Your task to perform on an android device: What's the weather like in Beijing? Image 0: 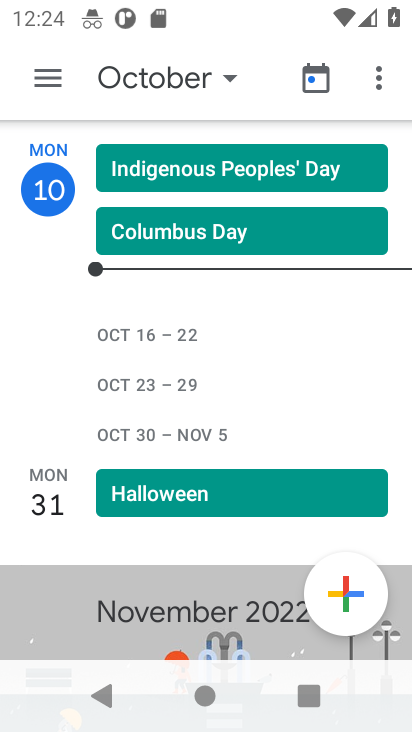
Step 0: press home button
Your task to perform on an android device: What's the weather like in Beijing? Image 1: 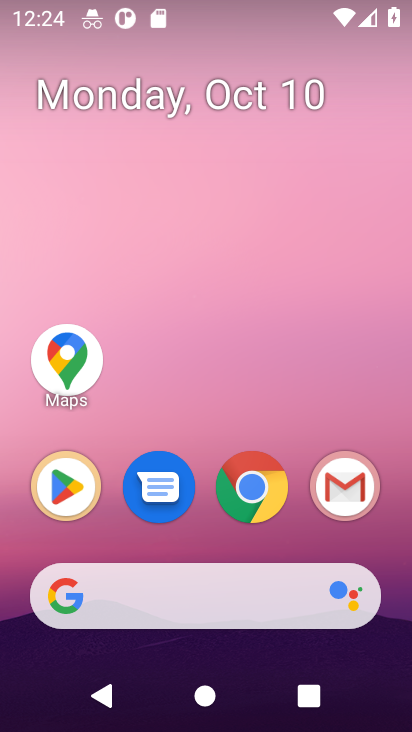
Step 1: click (259, 495)
Your task to perform on an android device: What's the weather like in Beijing? Image 2: 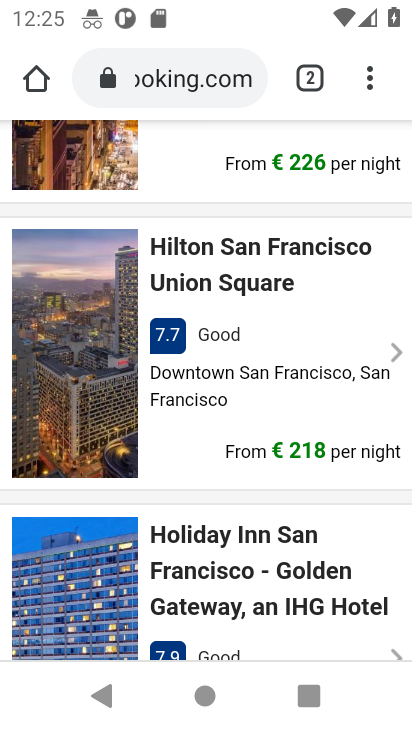
Step 2: click (201, 88)
Your task to perform on an android device: What's the weather like in Beijing? Image 3: 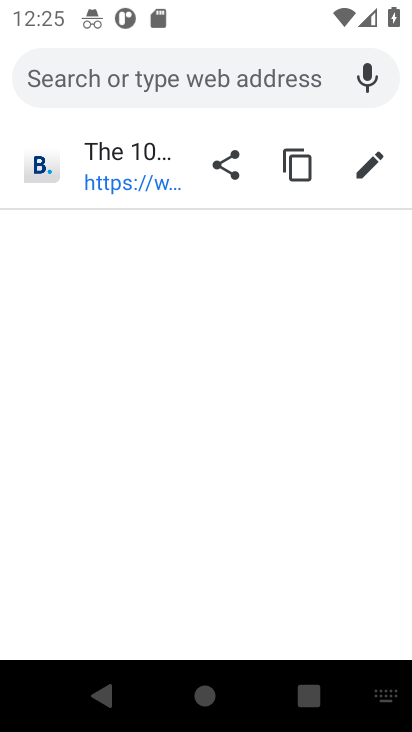
Step 3: type "weather like in Beijing"
Your task to perform on an android device: What's the weather like in Beijing? Image 4: 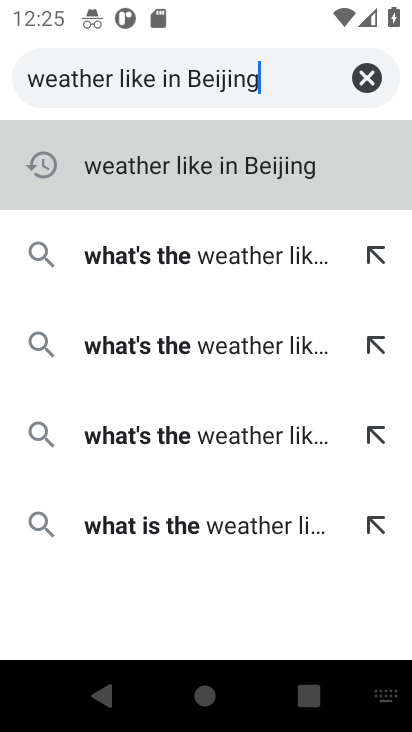
Step 4: press enter
Your task to perform on an android device: What's the weather like in Beijing? Image 5: 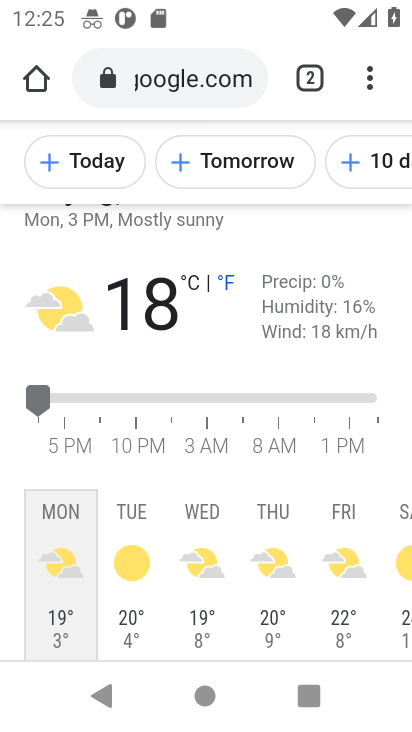
Step 5: task complete